Your task to perform on an android device: Find coffee shops on Maps Image 0: 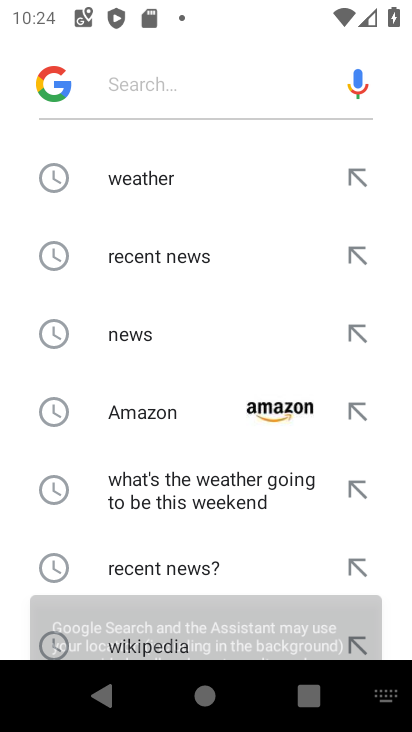
Step 0: press home button
Your task to perform on an android device: Find coffee shops on Maps Image 1: 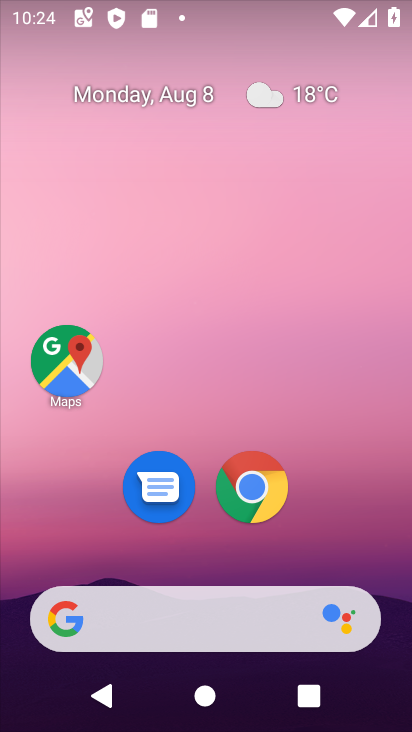
Step 1: drag from (213, 572) to (197, 40)
Your task to perform on an android device: Find coffee shops on Maps Image 2: 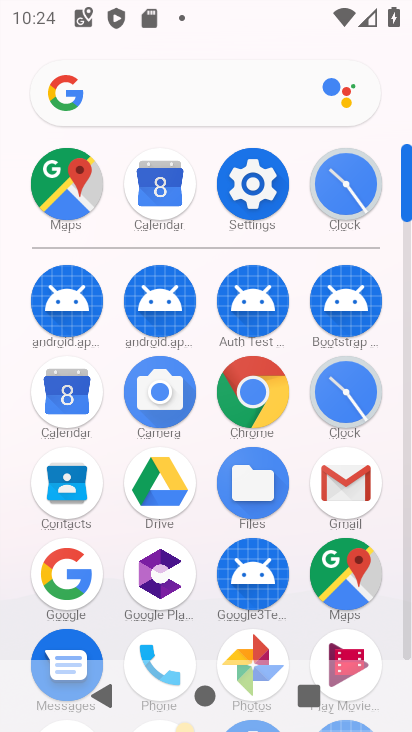
Step 2: click (352, 577)
Your task to perform on an android device: Find coffee shops on Maps Image 3: 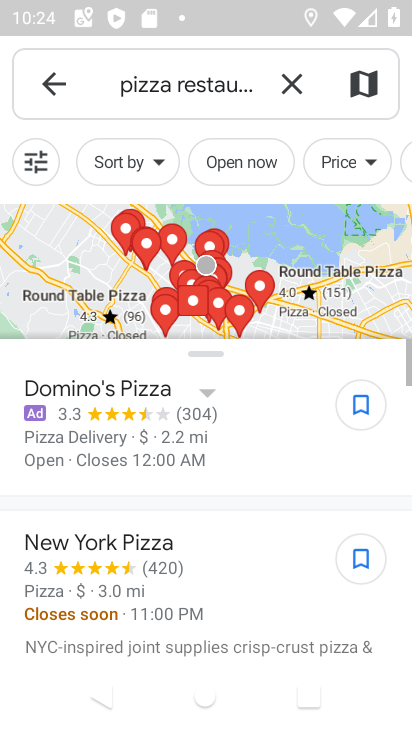
Step 3: click (291, 87)
Your task to perform on an android device: Find coffee shops on Maps Image 4: 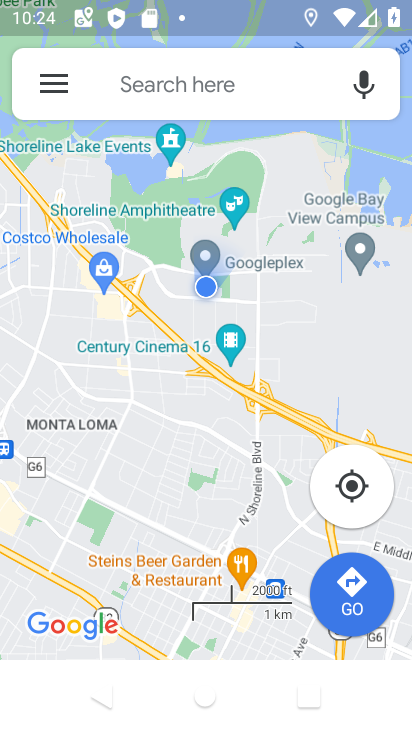
Step 4: click (189, 78)
Your task to perform on an android device: Find coffee shops on Maps Image 5: 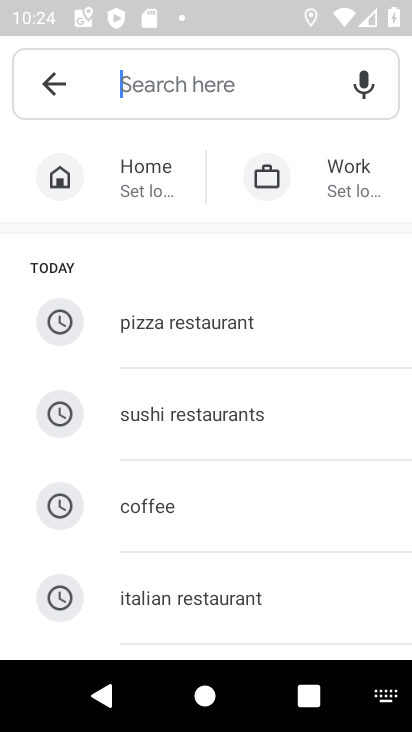
Step 5: type "coffee shops"
Your task to perform on an android device: Find coffee shops on Maps Image 6: 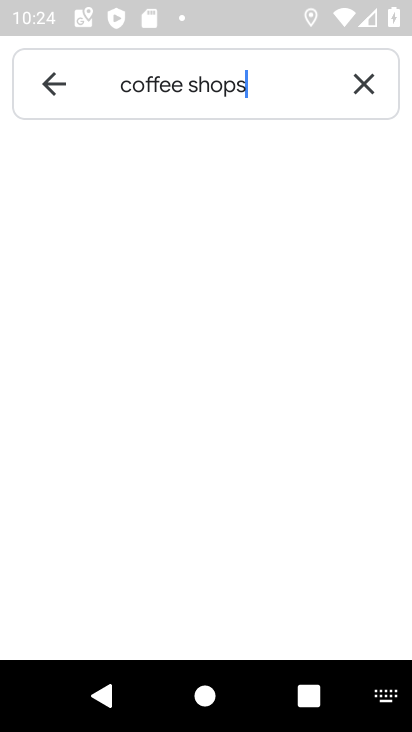
Step 6: type ""
Your task to perform on an android device: Find coffee shops on Maps Image 7: 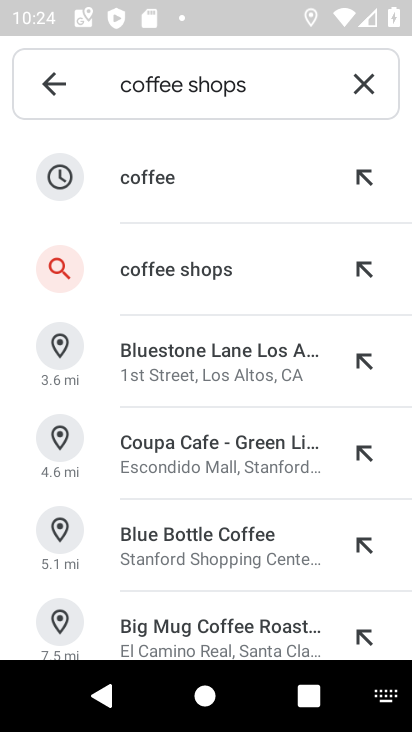
Step 7: click (181, 269)
Your task to perform on an android device: Find coffee shops on Maps Image 8: 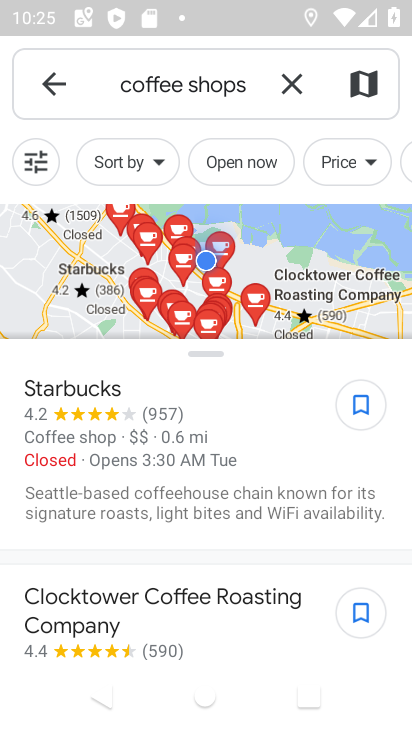
Step 8: task complete